Your task to perform on an android device: Open the Play Movies app and select the watchlist tab. Image 0: 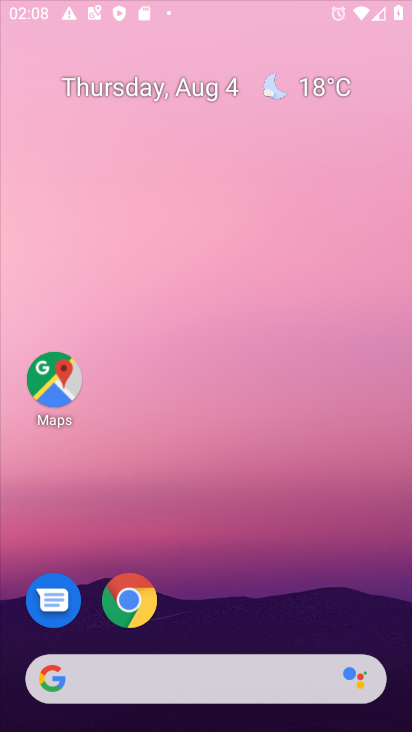
Step 0: press home button
Your task to perform on an android device: Open the Play Movies app and select the watchlist tab. Image 1: 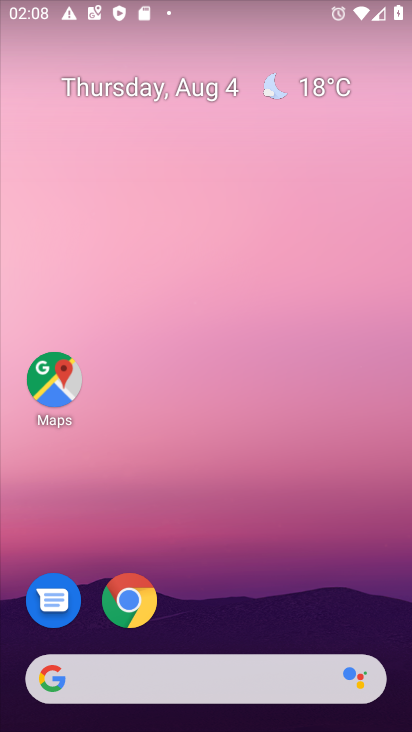
Step 1: drag from (145, 667) to (309, 142)
Your task to perform on an android device: Open the Play Movies app and select the watchlist tab. Image 2: 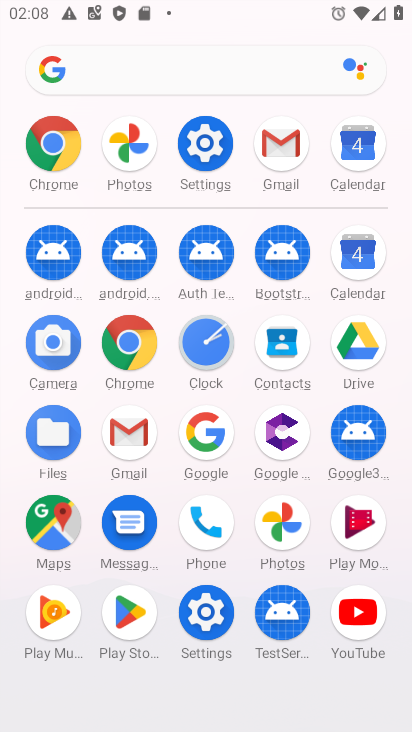
Step 2: click (358, 518)
Your task to perform on an android device: Open the Play Movies app and select the watchlist tab. Image 3: 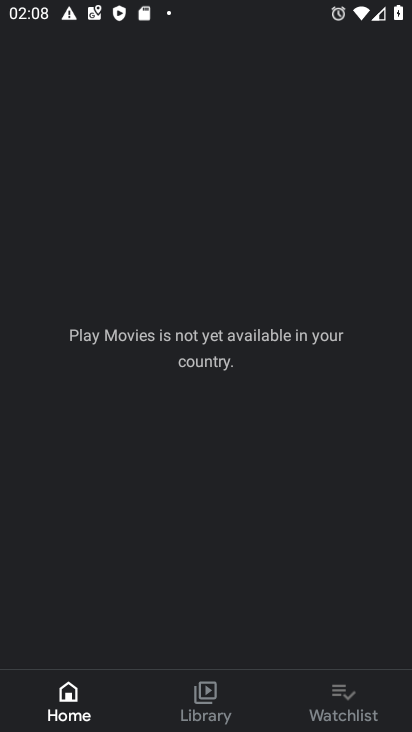
Step 3: click (347, 707)
Your task to perform on an android device: Open the Play Movies app and select the watchlist tab. Image 4: 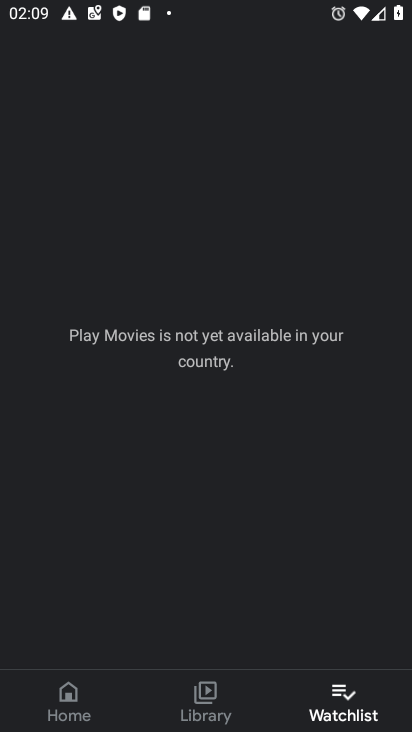
Step 4: task complete